Your task to perform on an android device: Open calendar and show me the third week of next month Image 0: 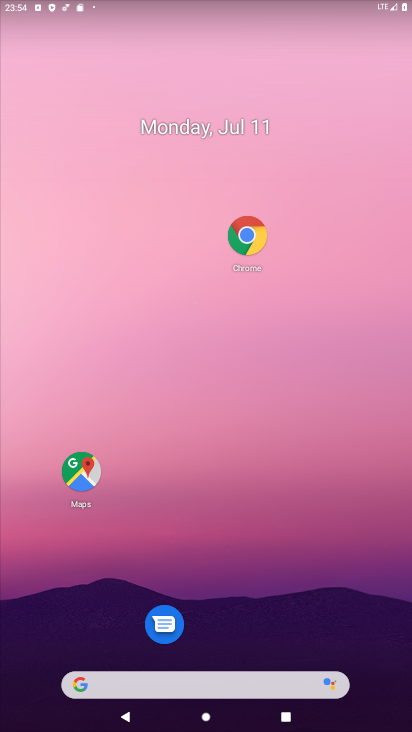
Step 0: drag from (215, 629) to (181, 237)
Your task to perform on an android device: Open calendar and show me the third week of next month Image 1: 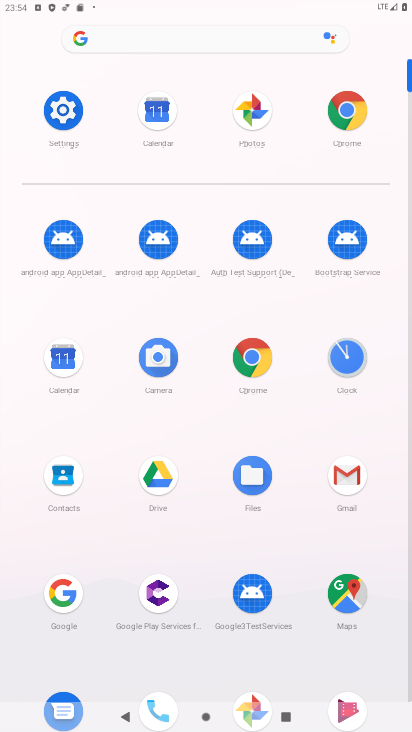
Step 1: click (152, 126)
Your task to perform on an android device: Open calendar and show me the third week of next month Image 2: 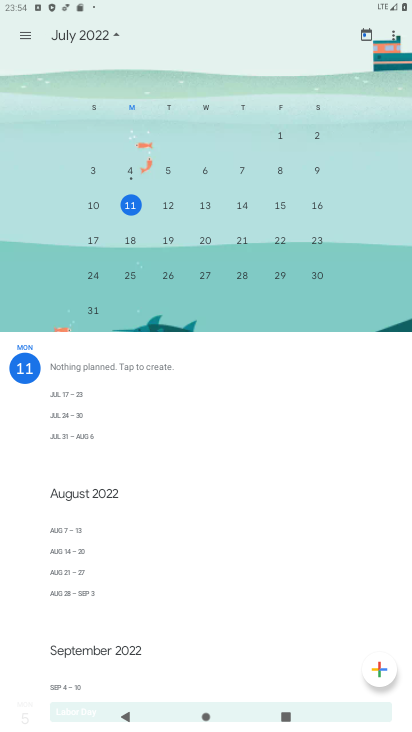
Step 2: drag from (377, 207) to (26, 181)
Your task to perform on an android device: Open calendar and show me the third week of next month Image 3: 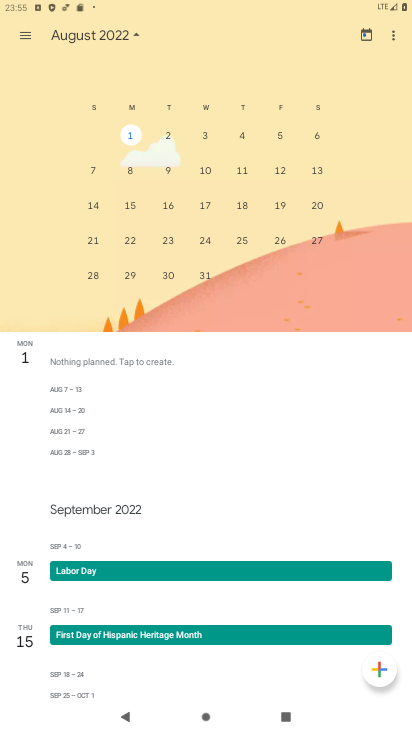
Step 3: click (91, 172)
Your task to perform on an android device: Open calendar and show me the third week of next month Image 4: 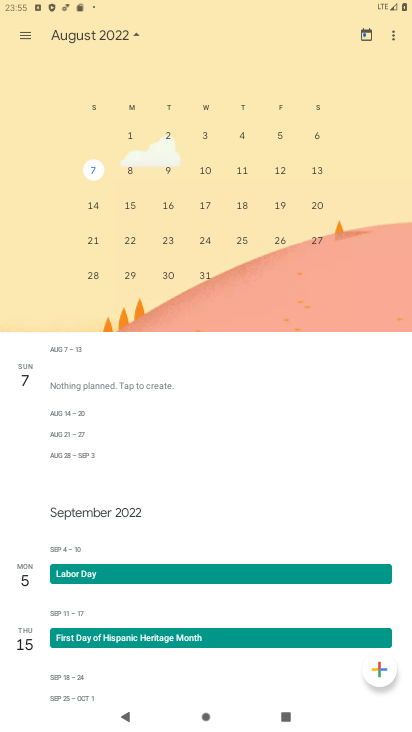
Step 4: click (84, 210)
Your task to perform on an android device: Open calendar and show me the third week of next month Image 5: 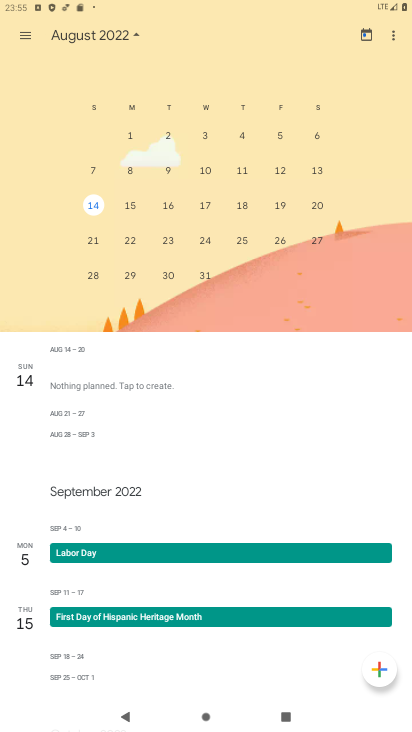
Step 5: click (89, 231)
Your task to perform on an android device: Open calendar and show me the third week of next month Image 6: 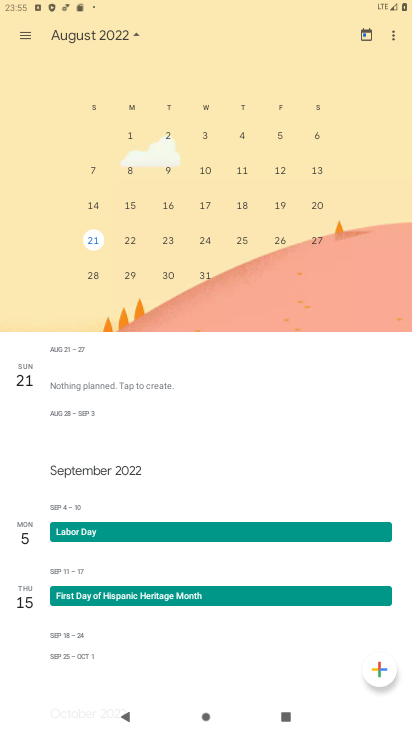
Step 6: task complete